Your task to perform on an android device: What's on my calendar tomorrow? Image 0: 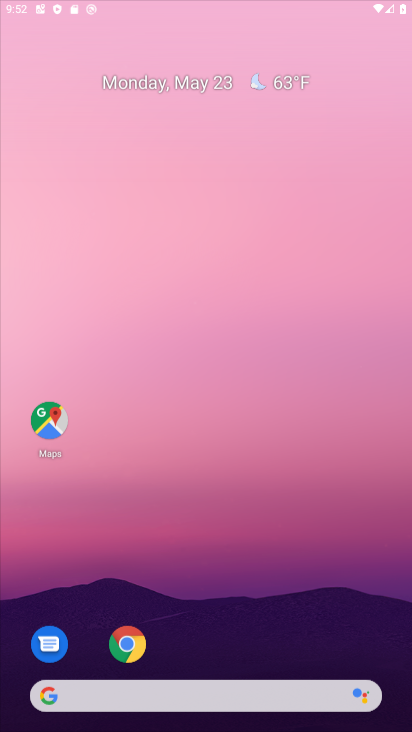
Step 0: press home button
Your task to perform on an android device: What's on my calendar tomorrow? Image 1: 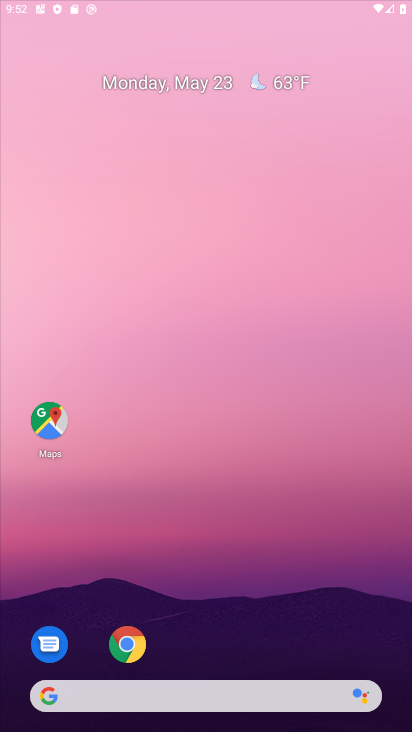
Step 1: drag from (195, 663) to (226, 67)
Your task to perform on an android device: What's on my calendar tomorrow? Image 2: 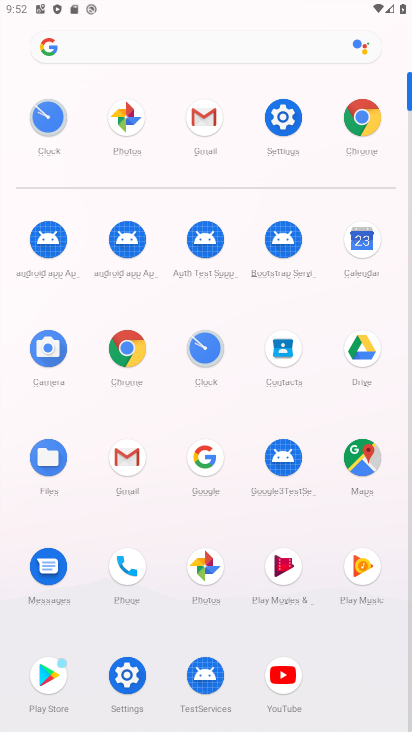
Step 2: click (360, 243)
Your task to perform on an android device: What's on my calendar tomorrow? Image 3: 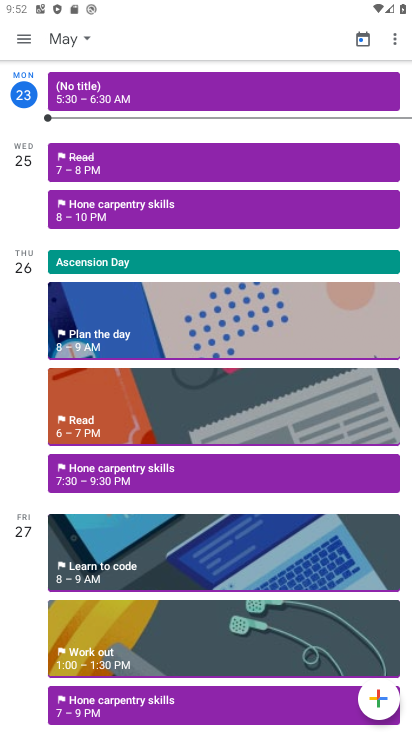
Step 3: click (74, 38)
Your task to perform on an android device: What's on my calendar tomorrow? Image 4: 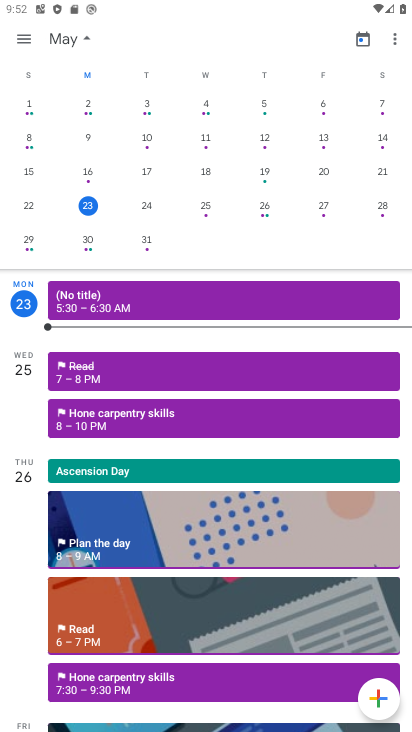
Step 4: click (142, 207)
Your task to perform on an android device: What's on my calendar tomorrow? Image 5: 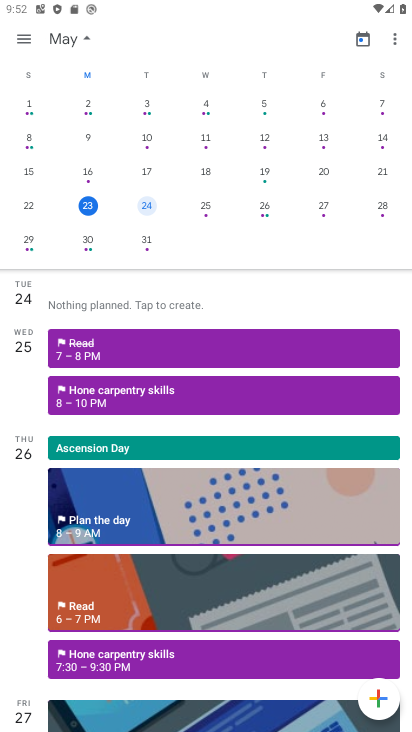
Step 5: click (85, 37)
Your task to perform on an android device: What's on my calendar tomorrow? Image 6: 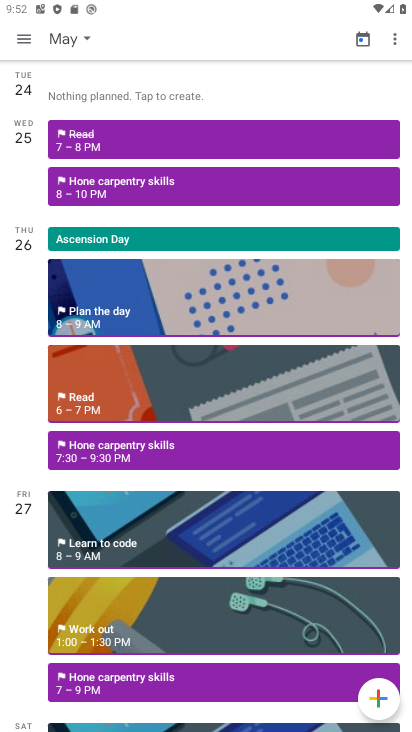
Step 6: click (26, 91)
Your task to perform on an android device: What's on my calendar tomorrow? Image 7: 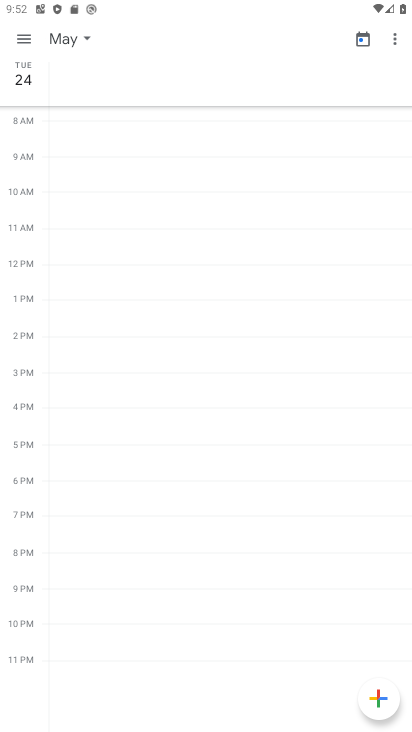
Step 7: drag from (8, 594) to (23, 107)
Your task to perform on an android device: What's on my calendar tomorrow? Image 8: 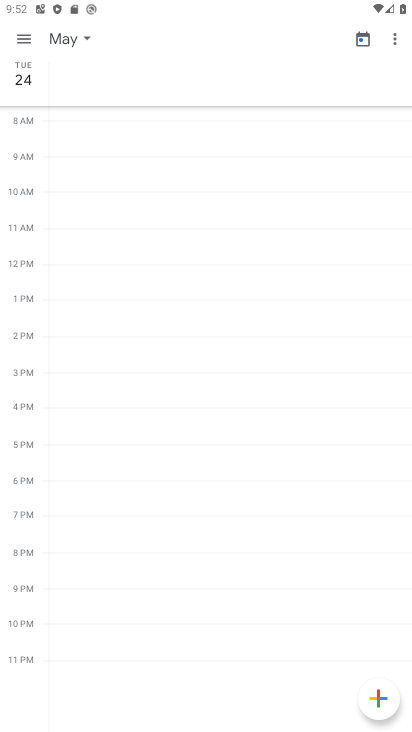
Step 8: click (21, 594)
Your task to perform on an android device: What's on my calendar tomorrow? Image 9: 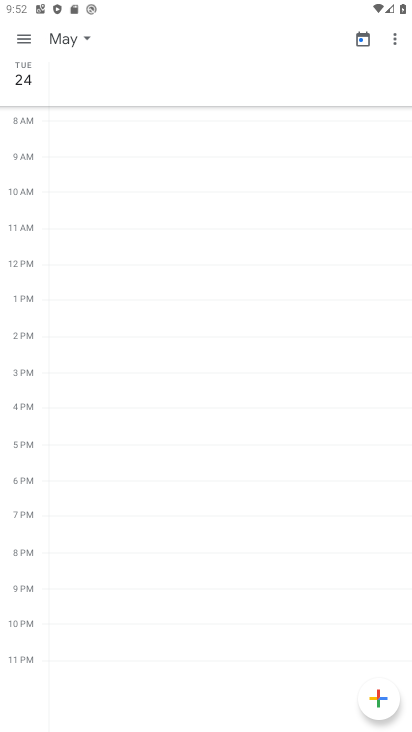
Step 9: task complete